Your task to perform on an android device: Is it going to rain today? Image 0: 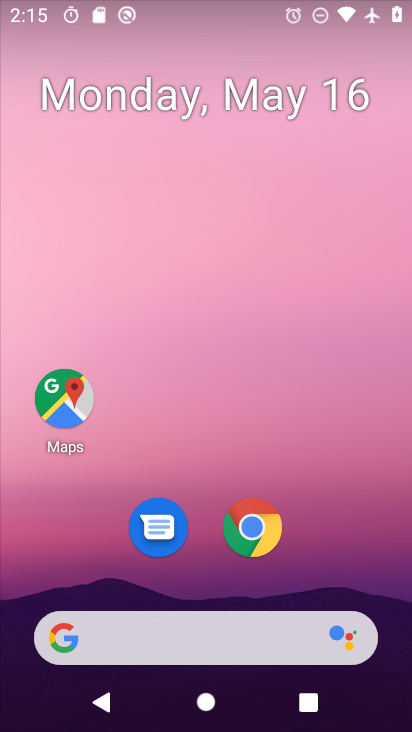
Step 0: drag from (236, 651) to (366, 188)
Your task to perform on an android device: Is it going to rain today? Image 1: 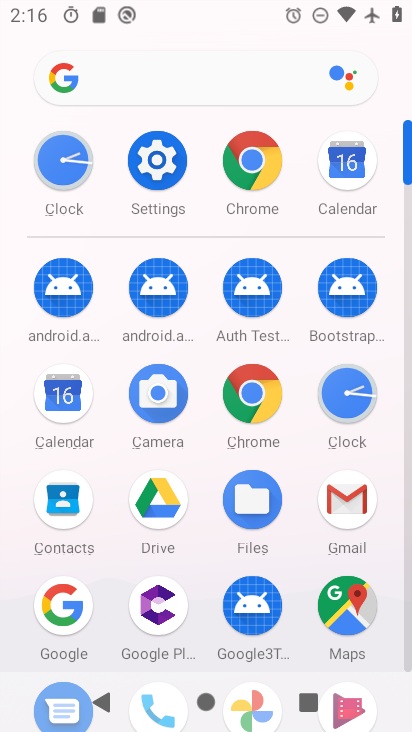
Step 1: click (72, 603)
Your task to perform on an android device: Is it going to rain today? Image 2: 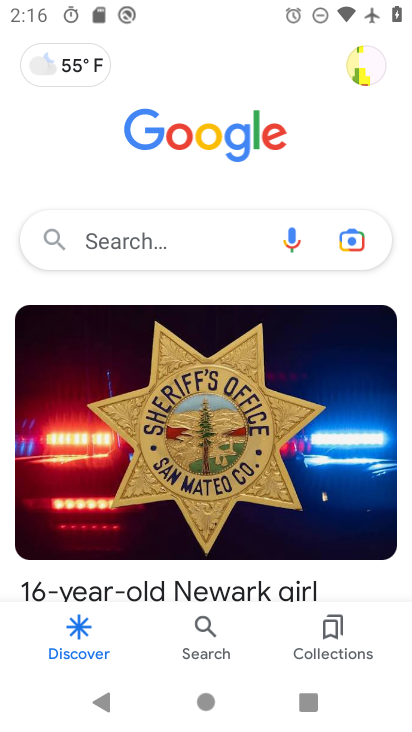
Step 2: click (87, 67)
Your task to perform on an android device: Is it going to rain today? Image 3: 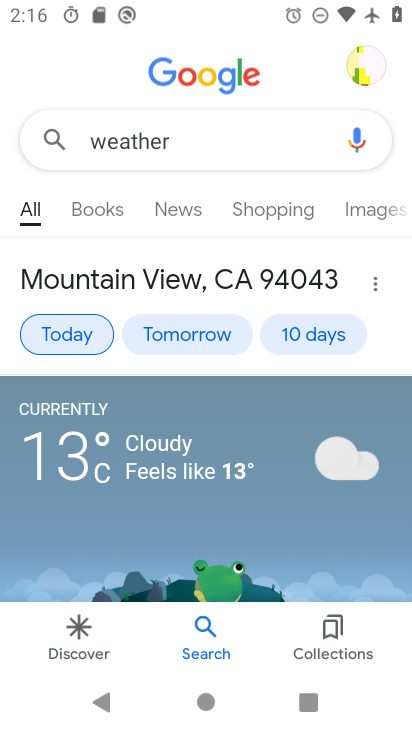
Step 3: task complete